Your task to perform on an android device: Open Maps and search for coffee Image 0: 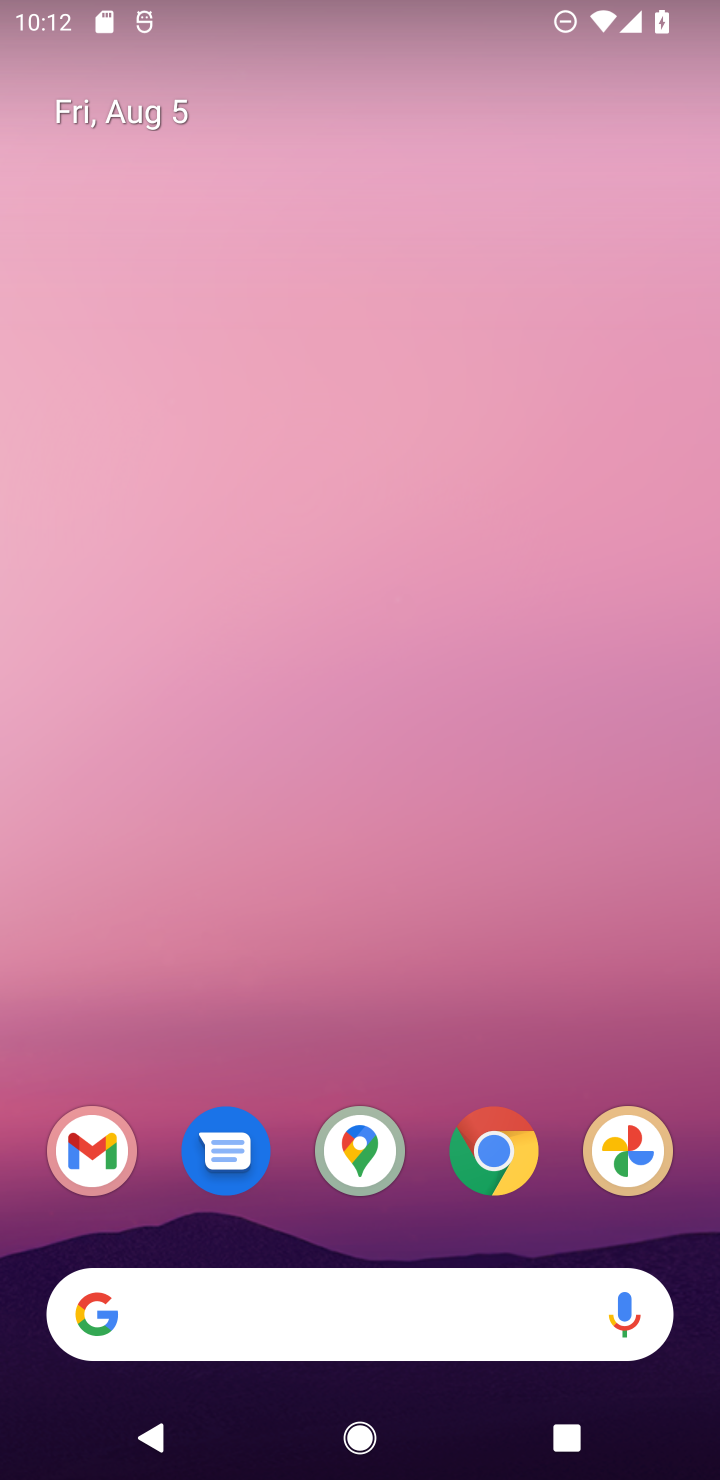
Step 0: click (352, 1169)
Your task to perform on an android device: Open Maps and search for coffee Image 1: 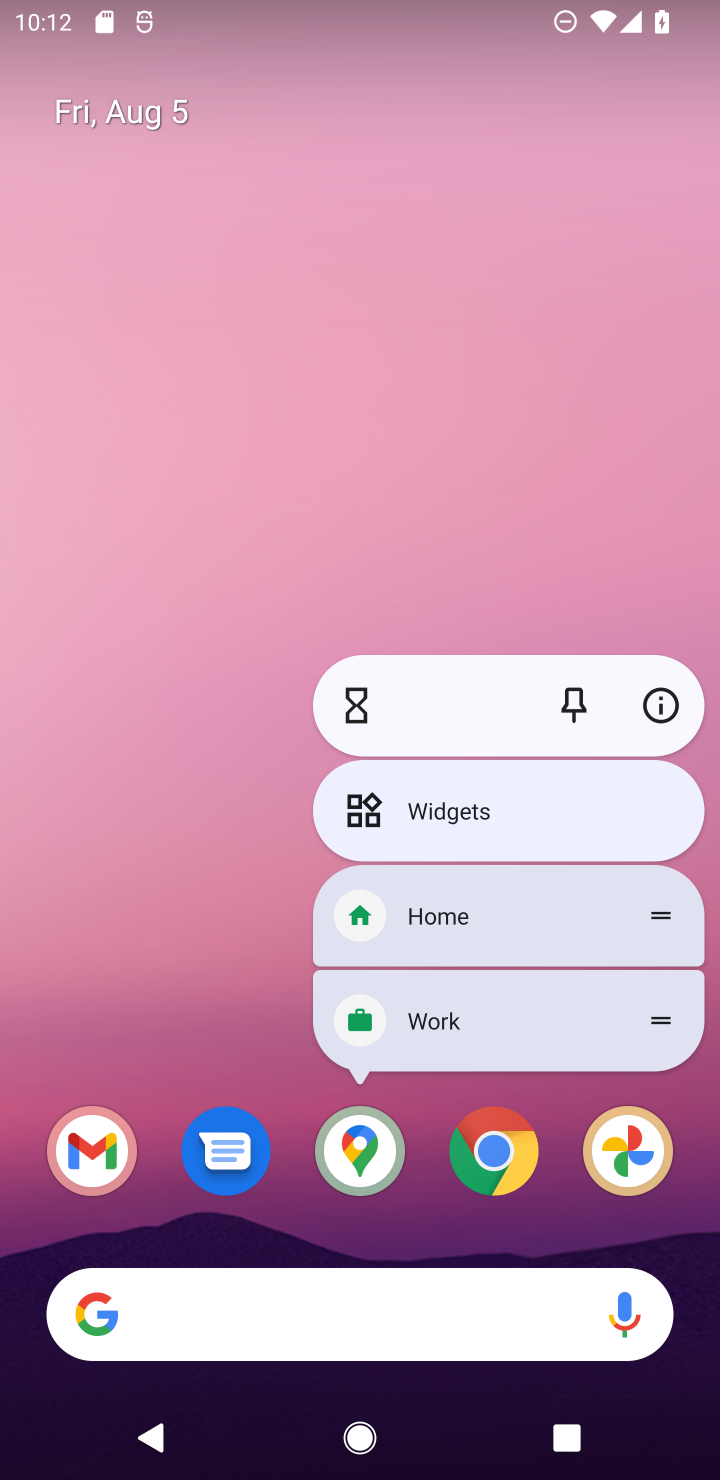
Step 1: click (352, 1169)
Your task to perform on an android device: Open Maps and search for coffee Image 2: 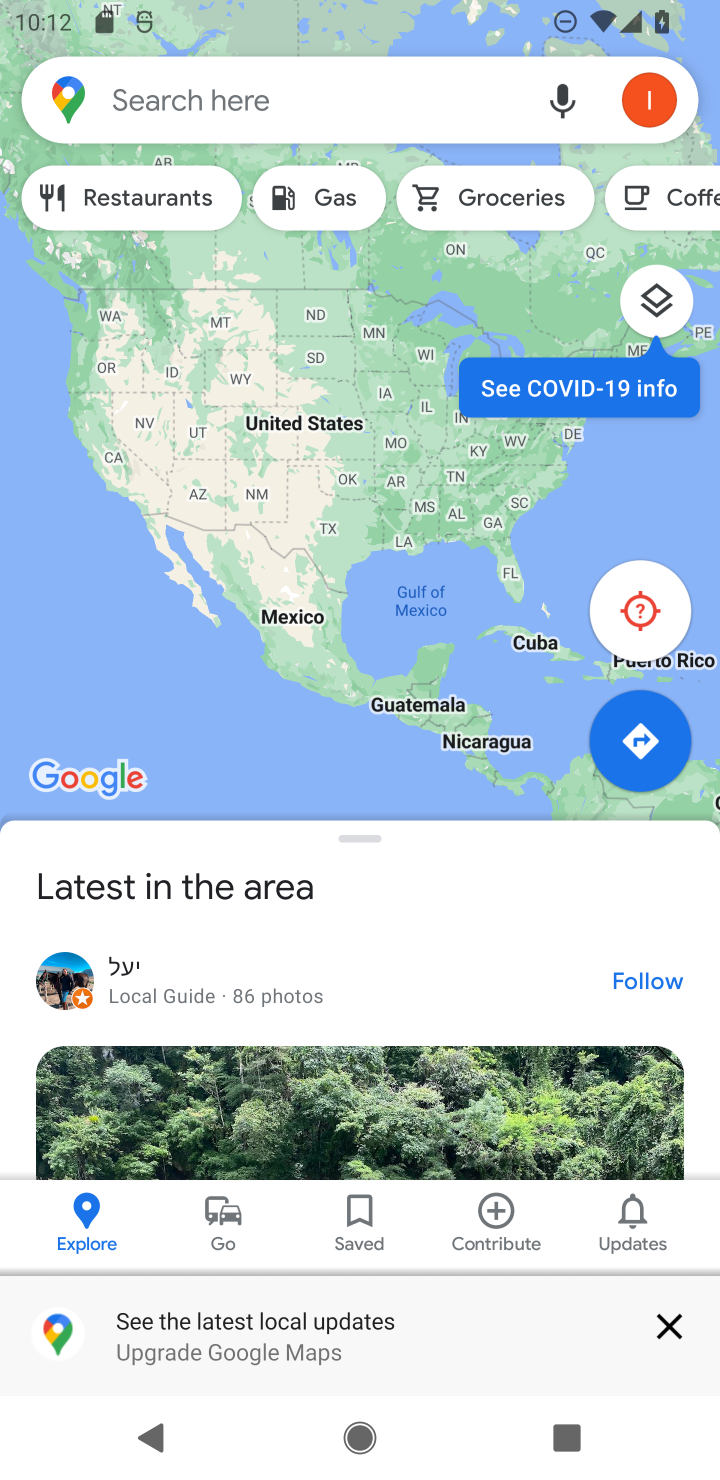
Step 2: task complete